Your task to perform on an android device: Search for "macbook air" on costco, select the first entry, and add it to the cart. Image 0: 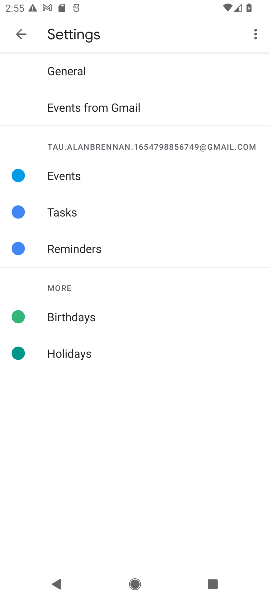
Step 0: press home button
Your task to perform on an android device: Search for "macbook air" on costco, select the first entry, and add it to the cart. Image 1: 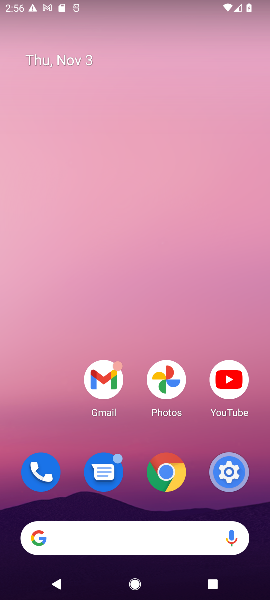
Step 1: click (117, 526)
Your task to perform on an android device: Search for "macbook air" on costco, select the first entry, and add it to the cart. Image 2: 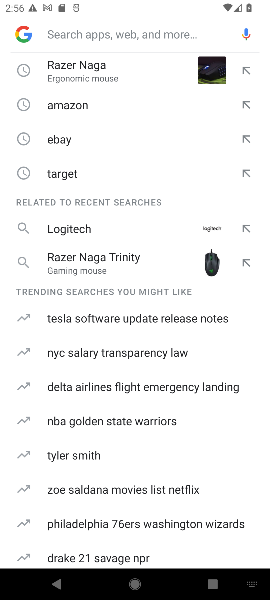
Step 2: type "costco"
Your task to perform on an android device: Search for "macbook air" on costco, select the first entry, and add it to the cart. Image 3: 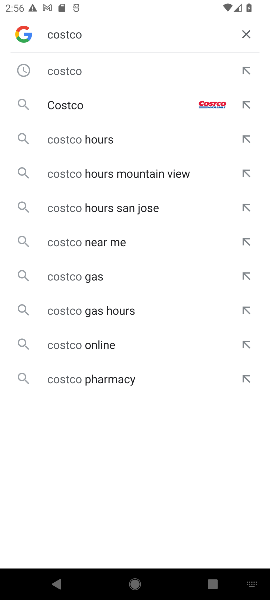
Step 3: click (202, 104)
Your task to perform on an android device: Search for "macbook air" on costco, select the first entry, and add it to the cart. Image 4: 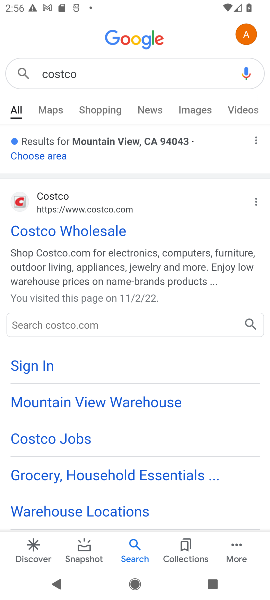
Step 4: click (93, 234)
Your task to perform on an android device: Search for "macbook air" on costco, select the first entry, and add it to the cart. Image 5: 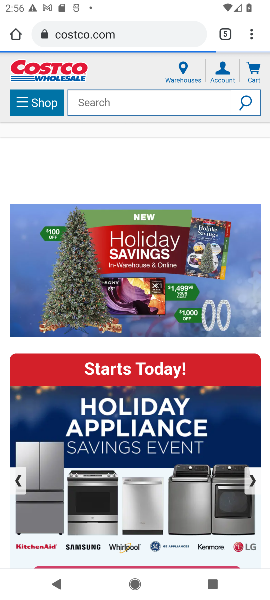
Step 5: click (144, 105)
Your task to perform on an android device: Search for "macbook air" on costco, select the first entry, and add it to the cart. Image 6: 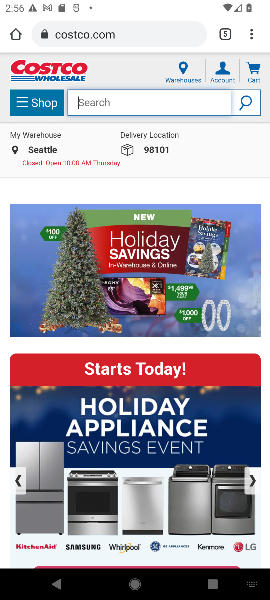
Step 6: type "macbook air"
Your task to perform on an android device: Search for "macbook air" on costco, select the first entry, and add it to the cart. Image 7: 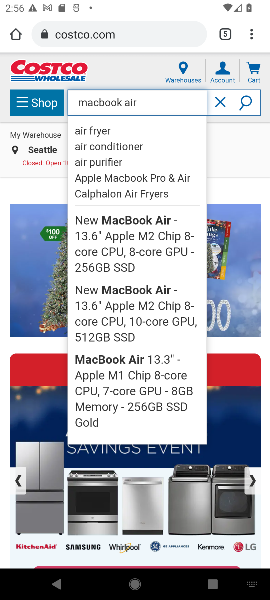
Step 7: click (248, 108)
Your task to perform on an android device: Search for "macbook air" on costco, select the first entry, and add it to the cart. Image 8: 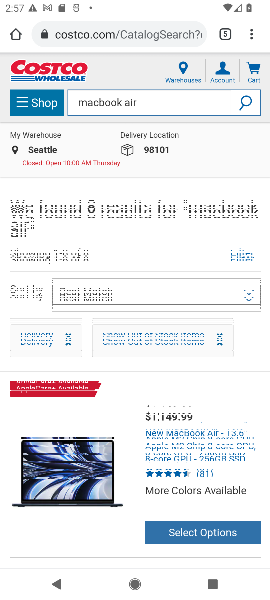
Step 8: drag from (144, 514) to (134, 293)
Your task to perform on an android device: Search for "macbook air" on costco, select the first entry, and add it to the cart. Image 9: 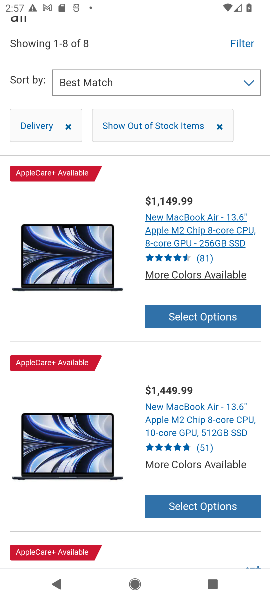
Step 9: click (177, 318)
Your task to perform on an android device: Search for "macbook air" on costco, select the first entry, and add it to the cart. Image 10: 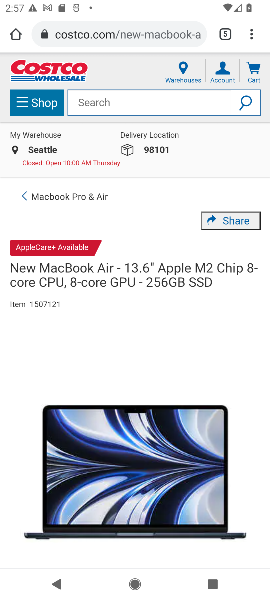
Step 10: drag from (180, 364) to (188, 82)
Your task to perform on an android device: Search for "macbook air" on costco, select the first entry, and add it to the cart. Image 11: 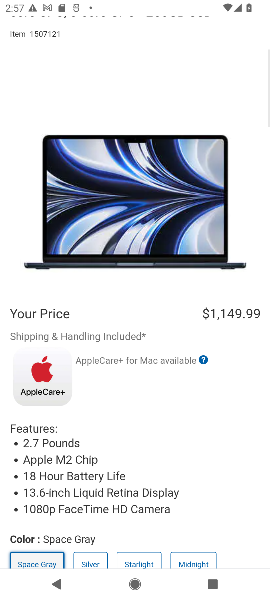
Step 11: drag from (168, 430) to (198, 88)
Your task to perform on an android device: Search for "macbook air" on costco, select the first entry, and add it to the cart. Image 12: 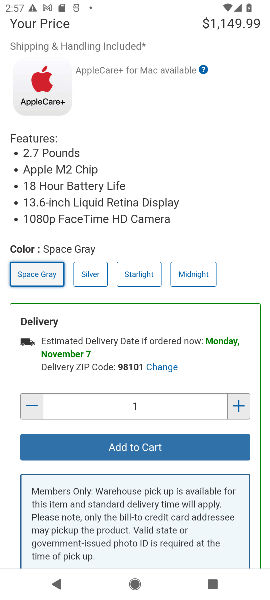
Step 12: click (160, 437)
Your task to perform on an android device: Search for "macbook air" on costco, select the first entry, and add it to the cart. Image 13: 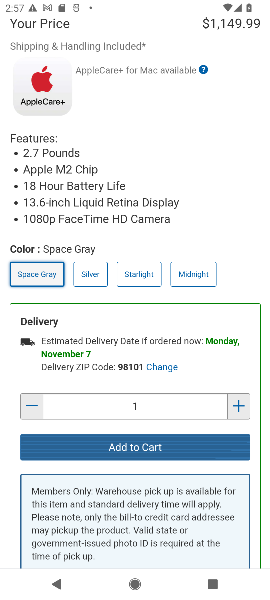
Step 13: task complete